Your task to perform on an android device: delete a single message in the gmail app Image 0: 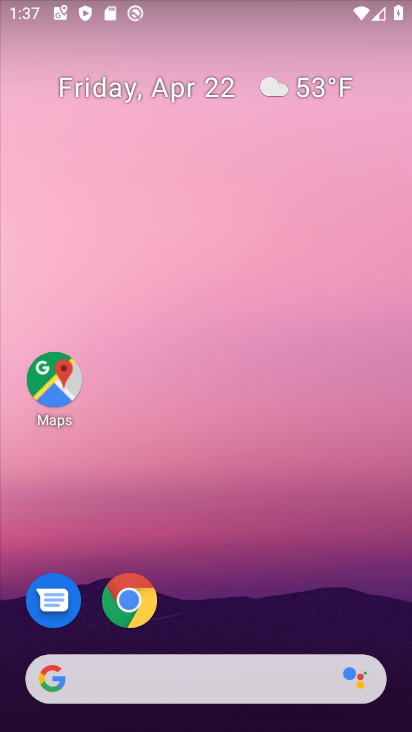
Step 0: drag from (219, 604) to (219, 12)
Your task to perform on an android device: delete a single message in the gmail app Image 1: 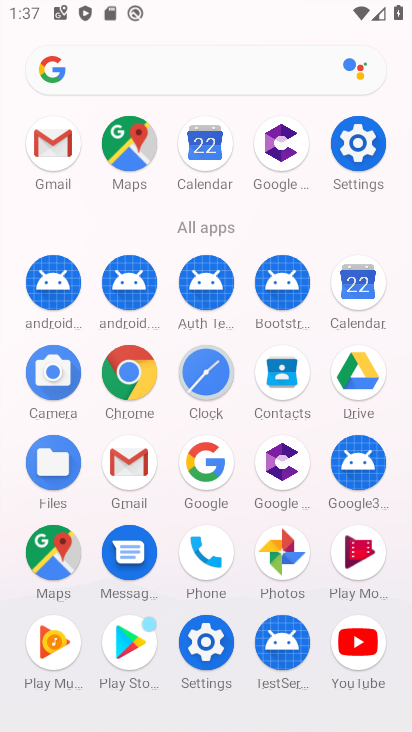
Step 1: click (55, 150)
Your task to perform on an android device: delete a single message in the gmail app Image 2: 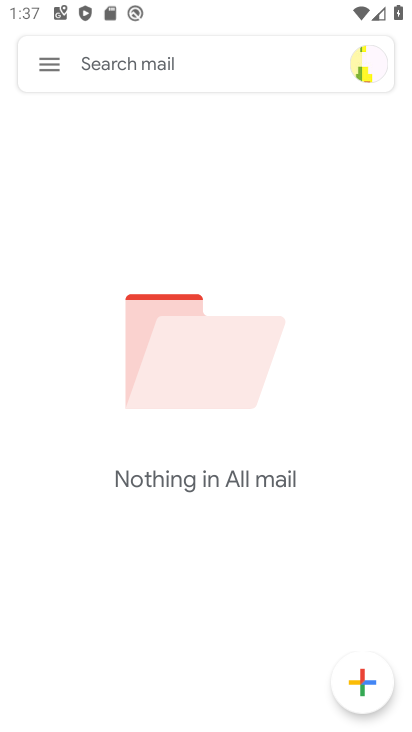
Step 2: click (45, 62)
Your task to perform on an android device: delete a single message in the gmail app Image 3: 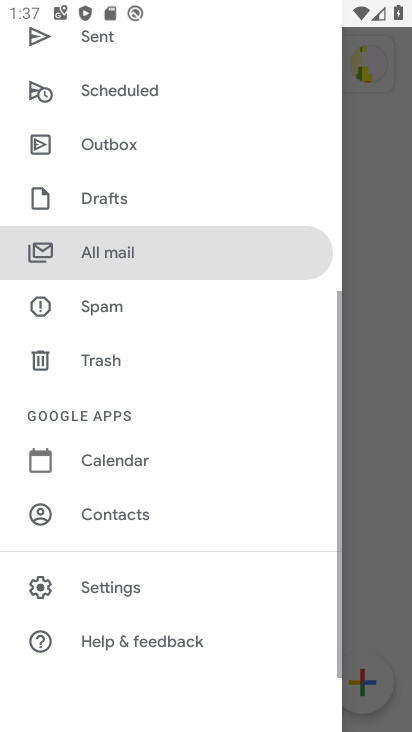
Step 3: drag from (130, 121) to (166, 569)
Your task to perform on an android device: delete a single message in the gmail app Image 4: 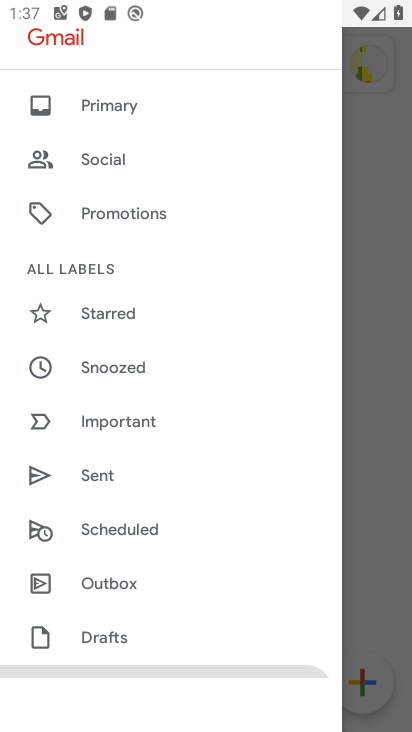
Step 4: drag from (145, 118) to (151, 611)
Your task to perform on an android device: delete a single message in the gmail app Image 5: 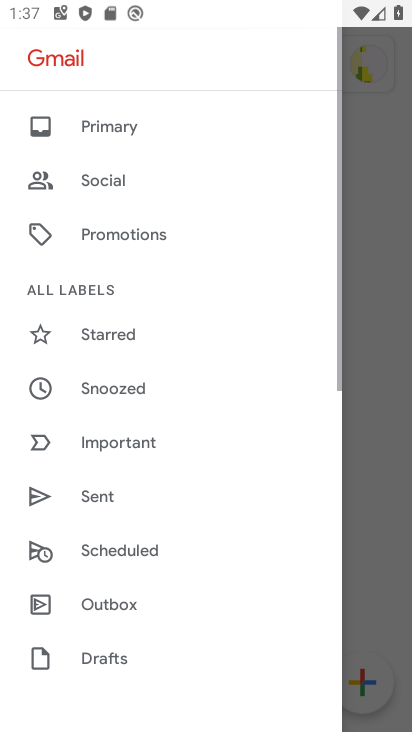
Step 5: click (107, 123)
Your task to perform on an android device: delete a single message in the gmail app Image 6: 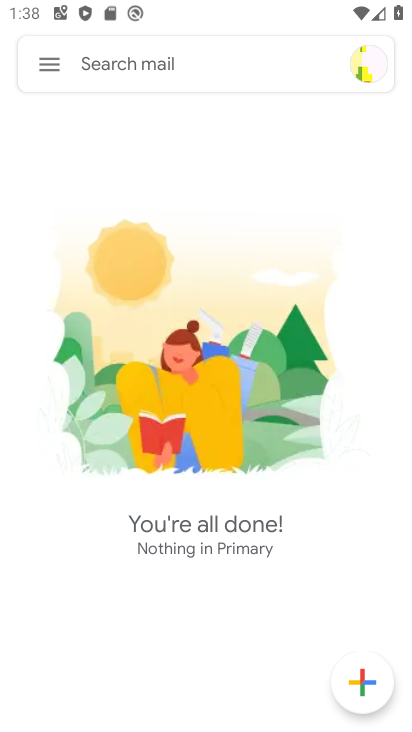
Step 6: task complete